Your task to perform on an android device: open app "Viber Messenger" Image 0: 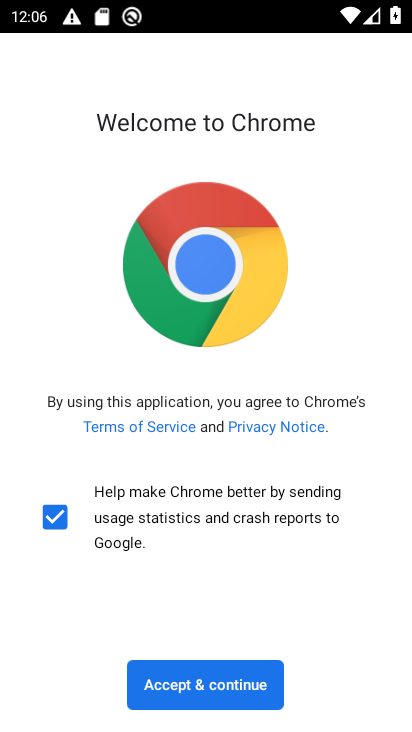
Step 0: press home button
Your task to perform on an android device: open app "Viber Messenger" Image 1: 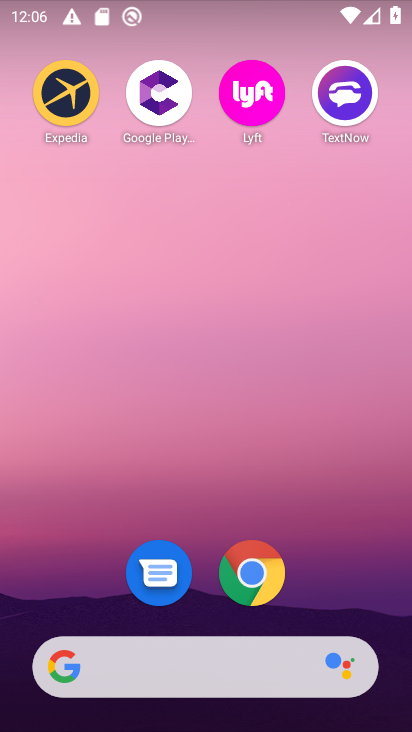
Step 1: drag from (196, 507) to (222, 131)
Your task to perform on an android device: open app "Viber Messenger" Image 2: 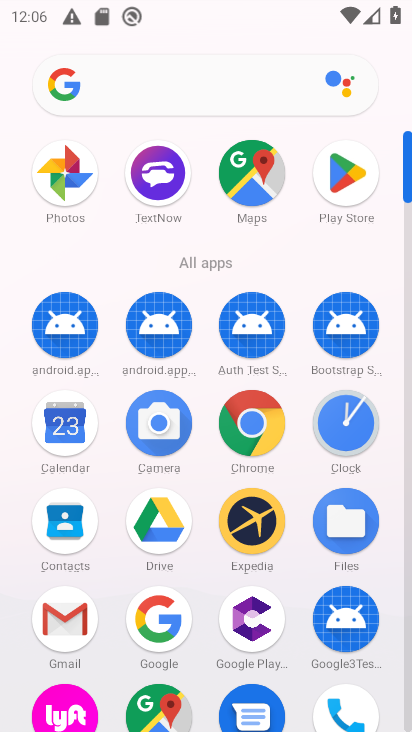
Step 2: click (334, 174)
Your task to perform on an android device: open app "Viber Messenger" Image 3: 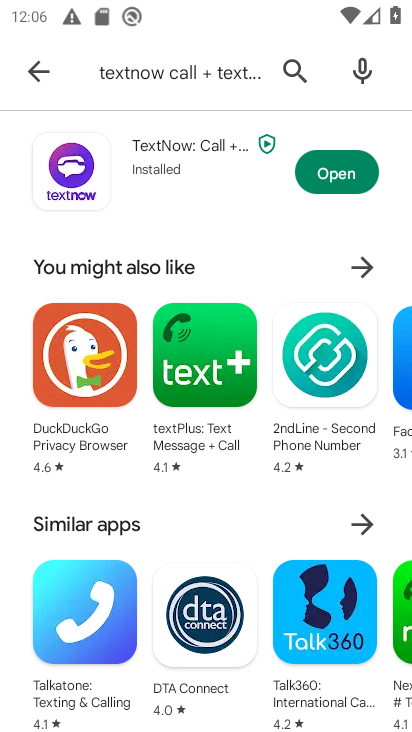
Step 3: click (291, 75)
Your task to perform on an android device: open app "Viber Messenger" Image 4: 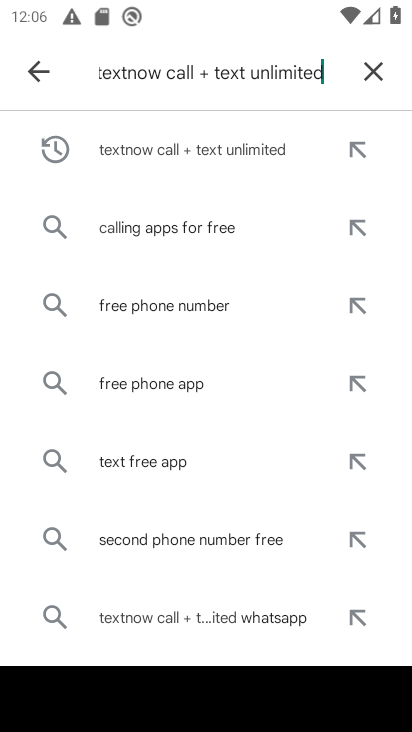
Step 4: click (365, 73)
Your task to perform on an android device: open app "Viber Messenger" Image 5: 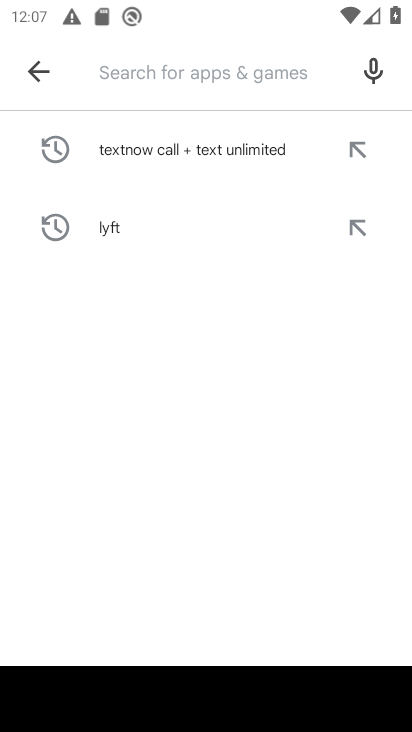
Step 5: type "Viber Messenger"
Your task to perform on an android device: open app "Viber Messenger" Image 6: 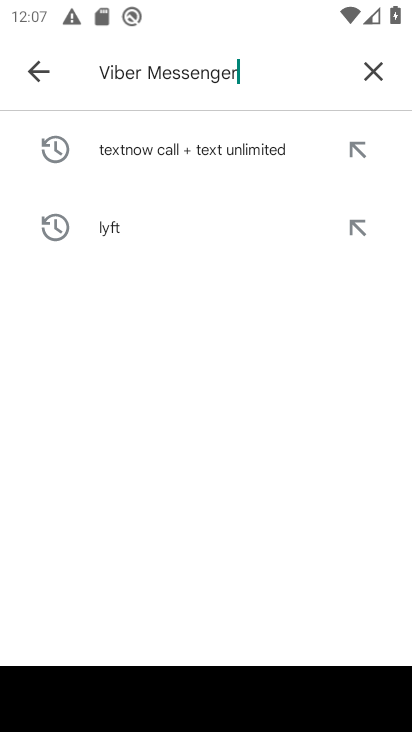
Step 6: type ""
Your task to perform on an android device: open app "Viber Messenger" Image 7: 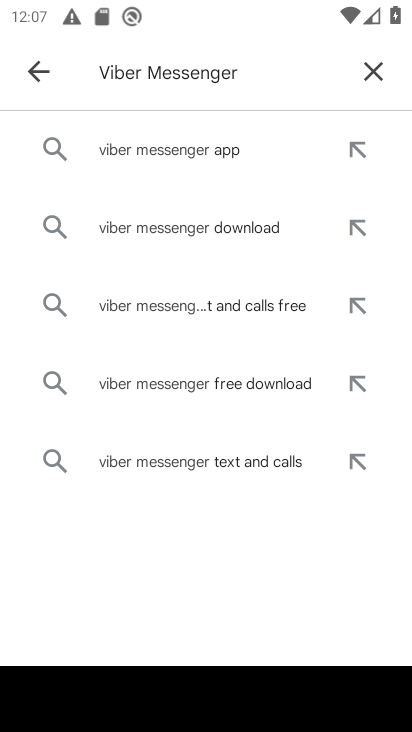
Step 7: click (160, 147)
Your task to perform on an android device: open app "Viber Messenger" Image 8: 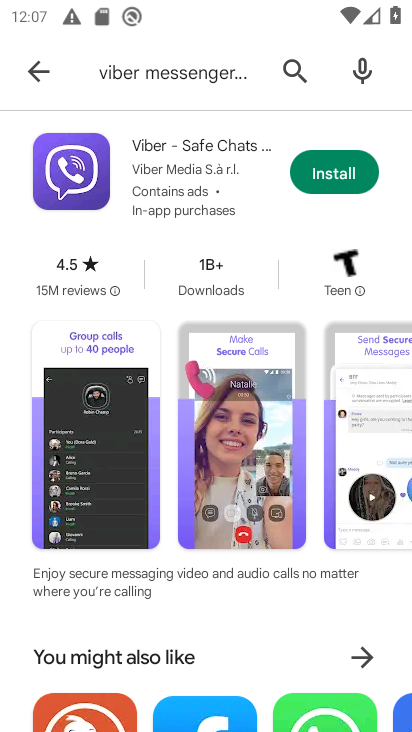
Step 8: task complete